Your task to perform on an android device: Turn on the flashlight Image 0: 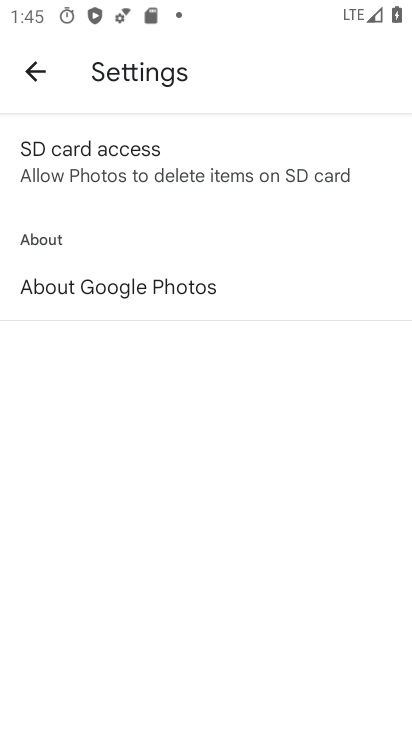
Step 0: press home button
Your task to perform on an android device: Turn on the flashlight Image 1: 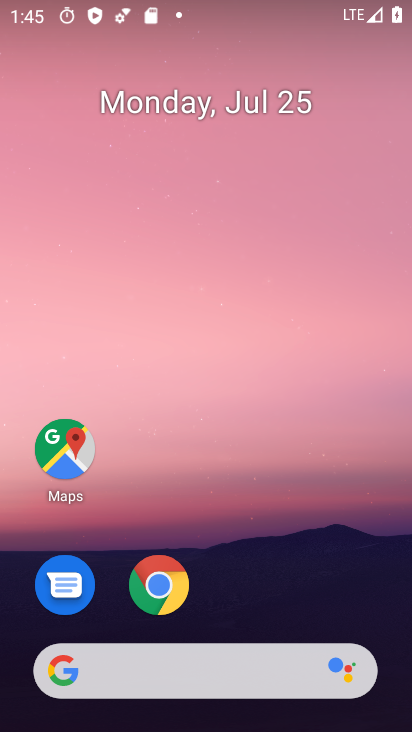
Step 1: click (300, 418)
Your task to perform on an android device: Turn on the flashlight Image 2: 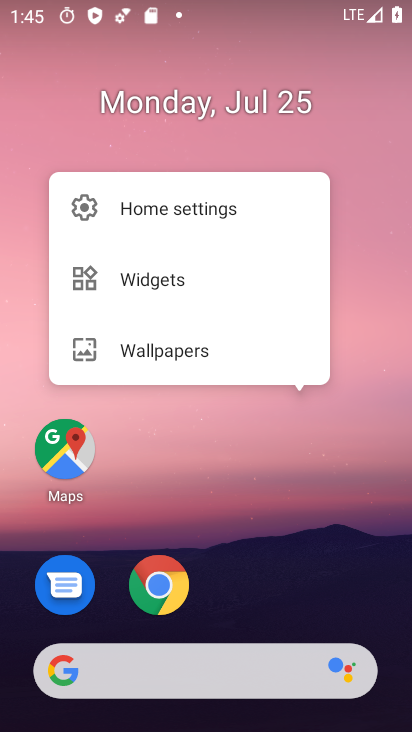
Step 2: task complete